Your task to perform on an android device: delete a single message in the gmail app Image 0: 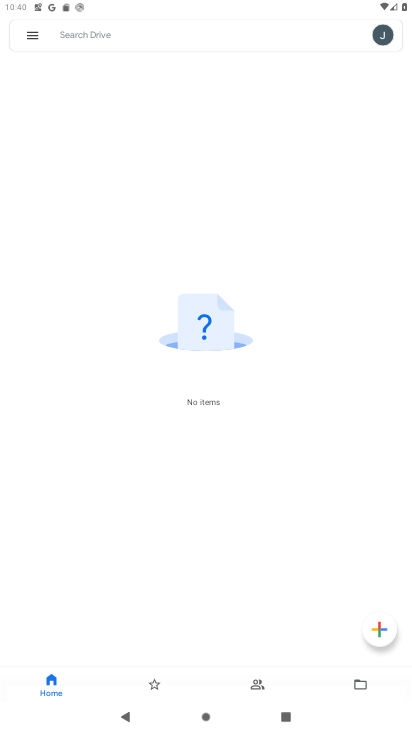
Step 0: press home button
Your task to perform on an android device: delete a single message in the gmail app Image 1: 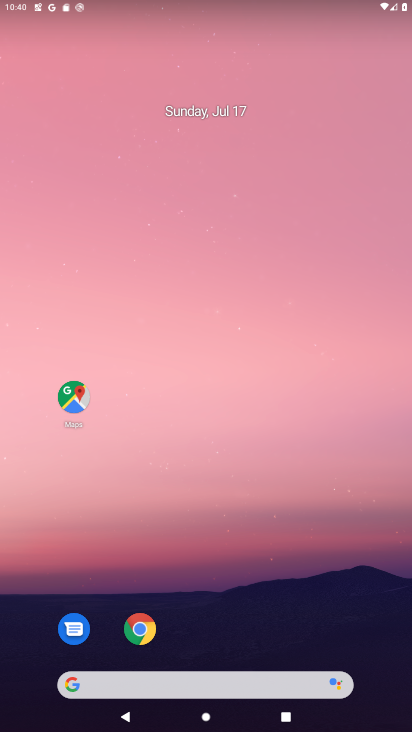
Step 1: drag from (187, 688) to (344, 180)
Your task to perform on an android device: delete a single message in the gmail app Image 2: 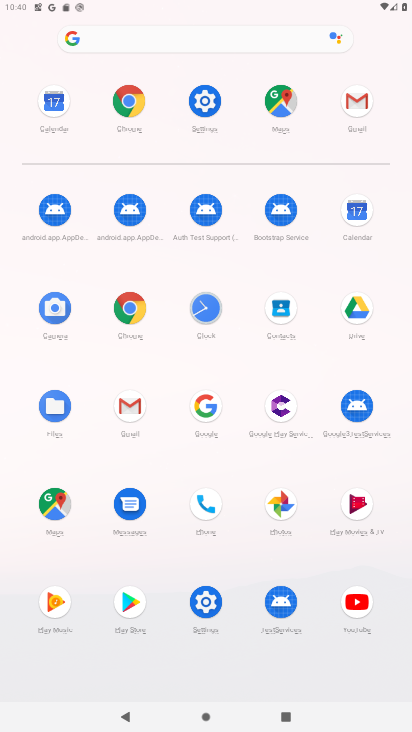
Step 2: click (360, 100)
Your task to perform on an android device: delete a single message in the gmail app Image 3: 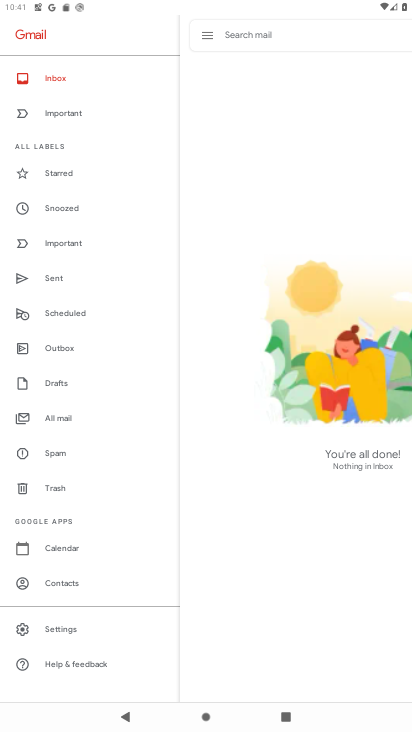
Step 3: click (54, 412)
Your task to perform on an android device: delete a single message in the gmail app Image 4: 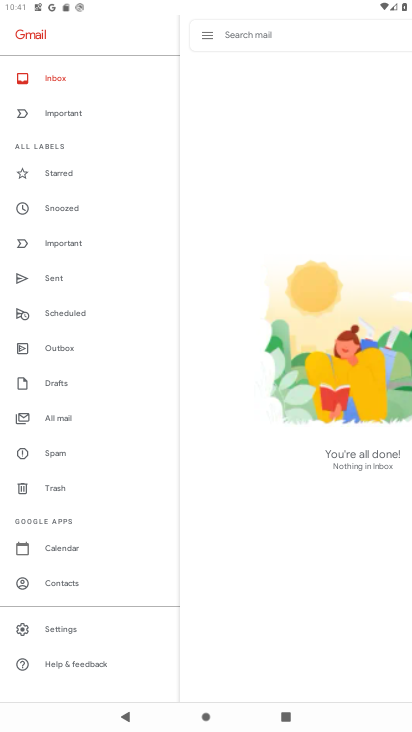
Step 4: click (56, 417)
Your task to perform on an android device: delete a single message in the gmail app Image 5: 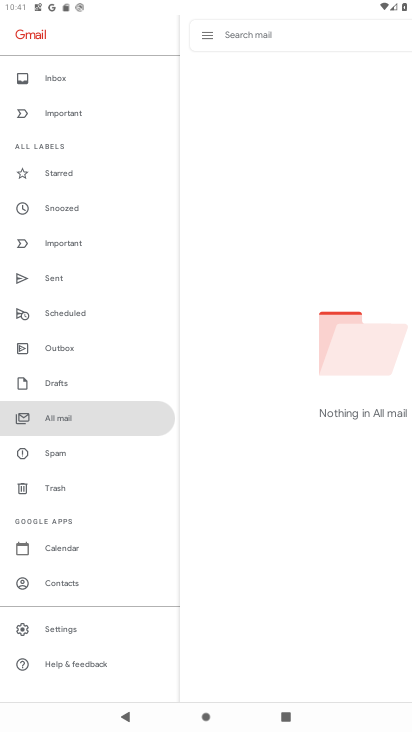
Step 5: task complete